Your task to perform on an android device: What's the weather today? Image 0: 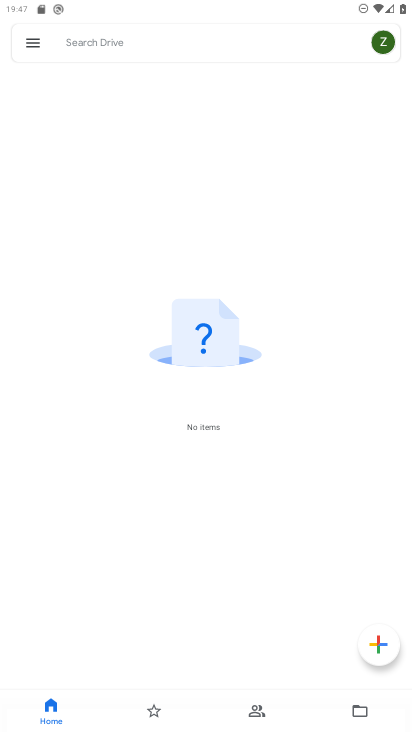
Step 0: press home button
Your task to perform on an android device: What's the weather today? Image 1: 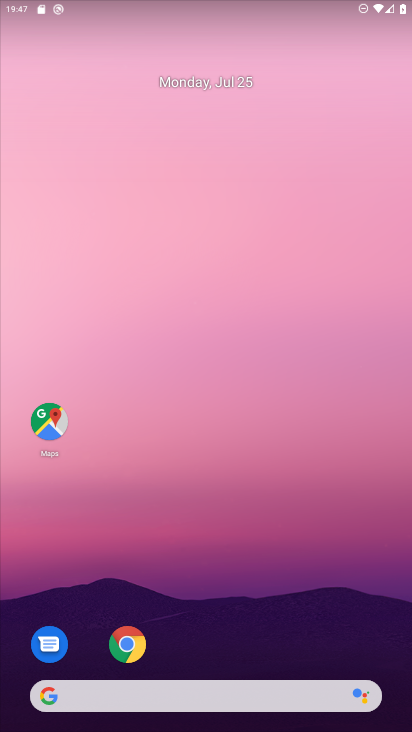
Step 1: click (177, 692)
Your task to perform on an android device: What's the weather today? Image 2: 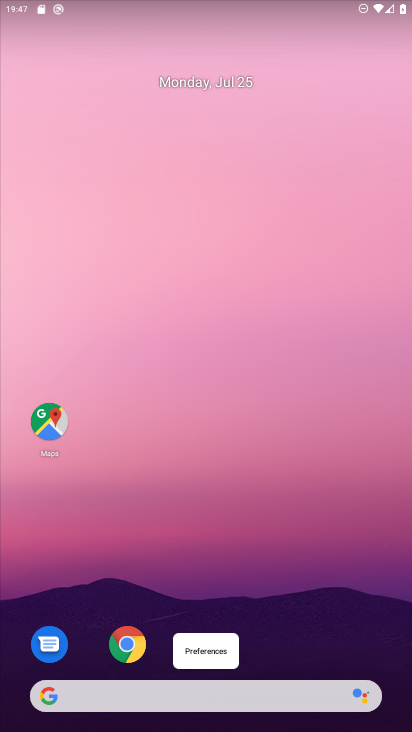
Step 2: click (177, 691)
Your task to perform on an android device: What's the weather today? Image 3: 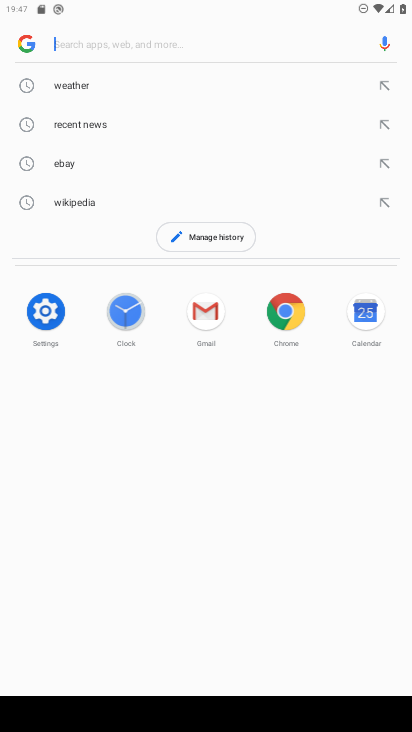
Step 3: click (105, 78)
Your task to perform on an android device: What's the weather today? Image 4: 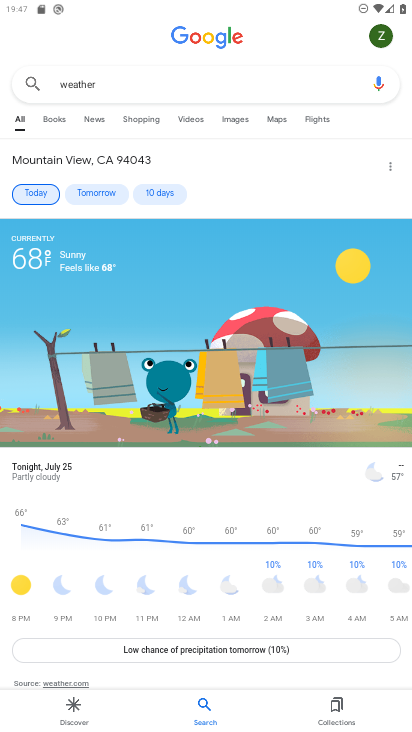
Step 4: task complete